Your task to perform on an android device: Show me productivity apps on the Play Store Image 0: 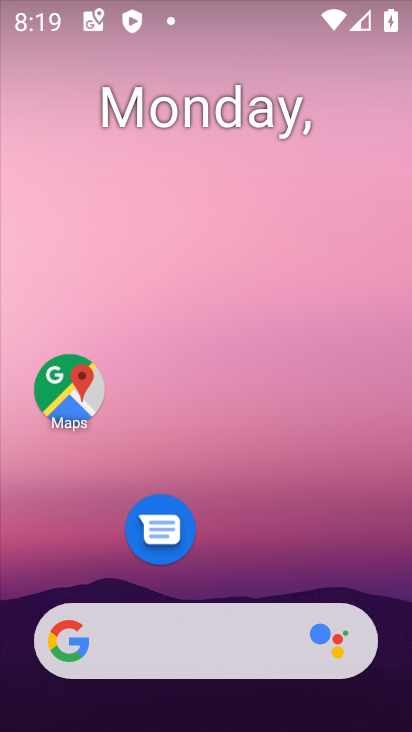
Step 0: drag from (222, 528) to (255, 165)
Your task to perform on an android device: Show me productivity apps on the Play Store Image 1: 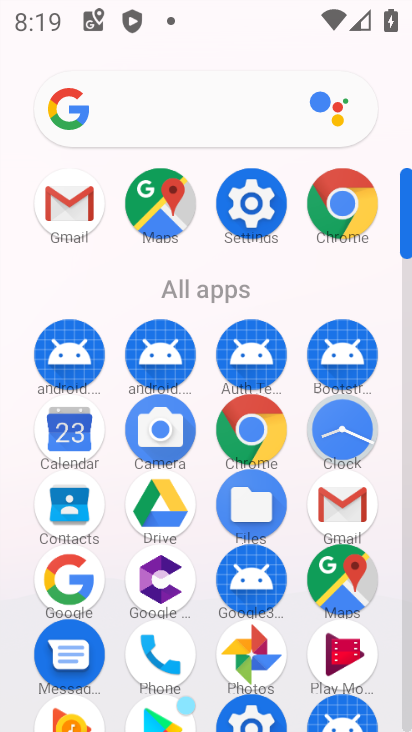
Step 1: drag from (287, 560) to (281, 219)
Your task to perform on an android device: Show me productivity apps on the Play Store Image 2: 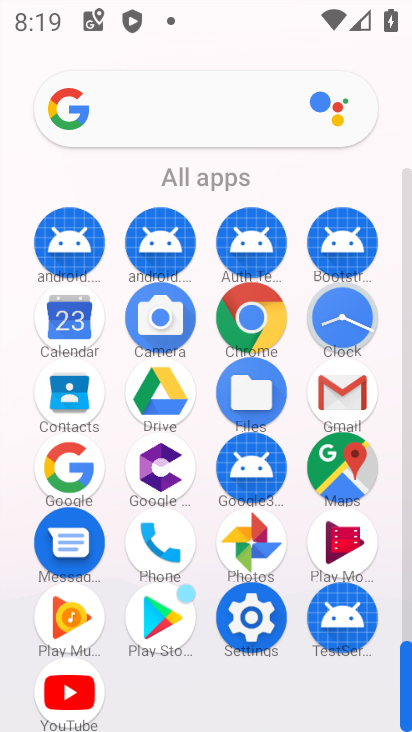
Step 2: click (174, 593)
Your task to perform on an android device: Show me productivity apps on the Play Store Image 3: 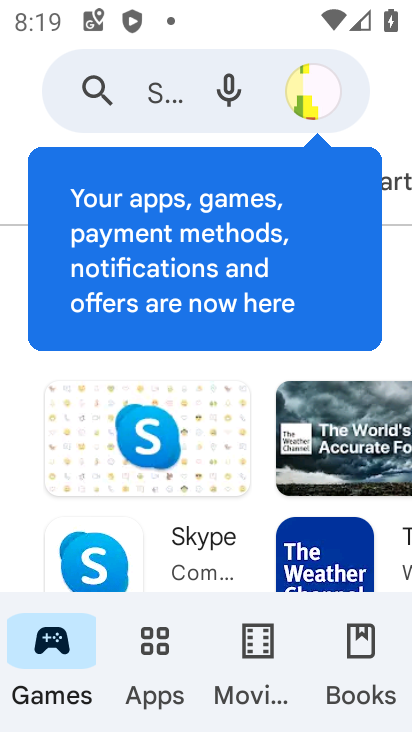
Step 3: click (138, 644)
Your task to perform on an android device: Show me productivity apps on the Play Store Image 4: 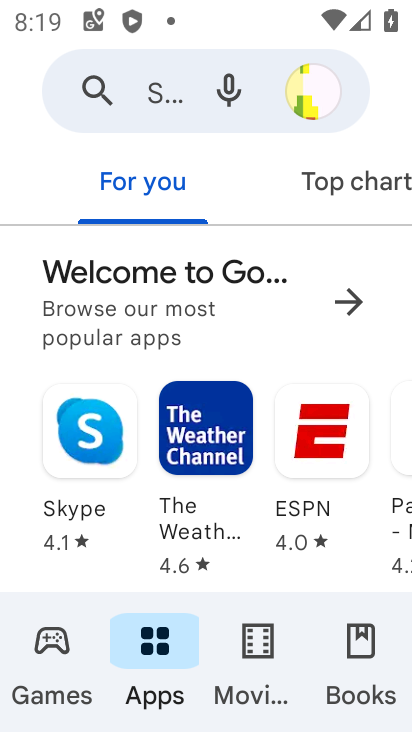
Step 4: drag from (375, 184) to (75, 187)
Your task to perform on an android device: Show me productivity apps on the Play Store Image 5: 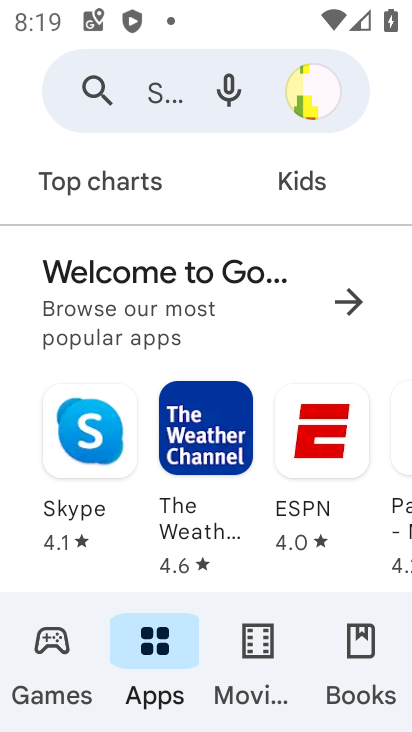
Step 5: drag from (316, 191) to (56, 182)
Your task to perform on an android device: Show me productivity apps on the Play Store Image 6: 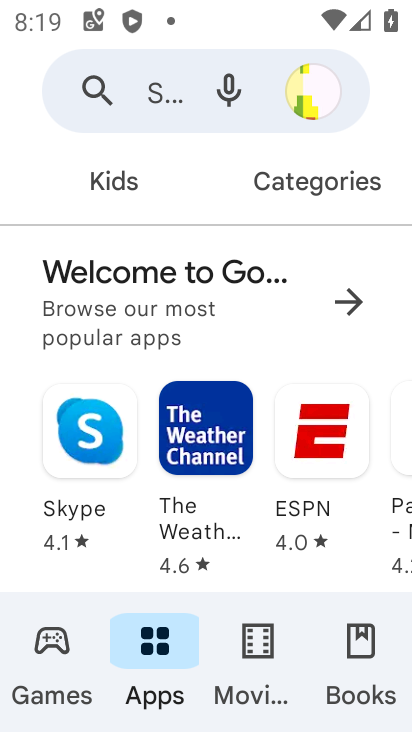
Step 6: click (320, 176)
Your task to perform on an android device: Show me productivity apps on the Play Store Image 7: 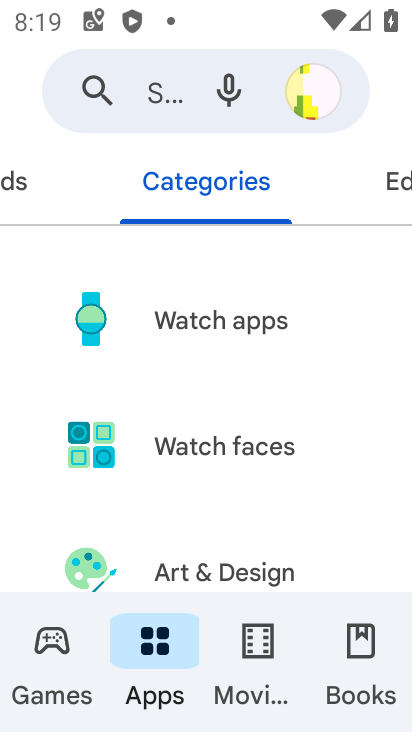
Step 7: drag from (279, 573) to (262, 190)
Your task to perform on an android device: Show me productivity apps on the Play Store Image 8: 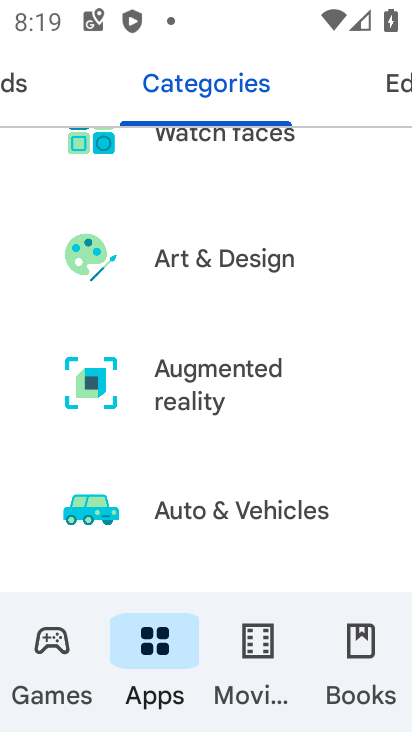
Step 8: drag from (222, 479) to (233, 221)
Your task to perform on an android device: Show me productivity apps on the Play Store Image 9: 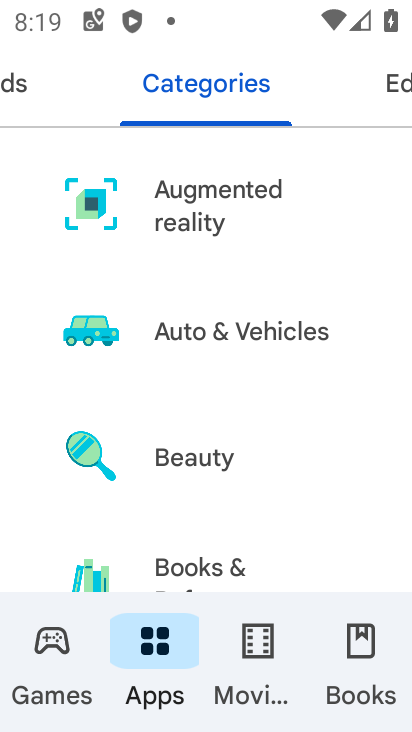
Step 9: drag from (257, 488) to (261, 206)
Your task to perform on an android device: Show me productivity apps on the Play Store Image 10: 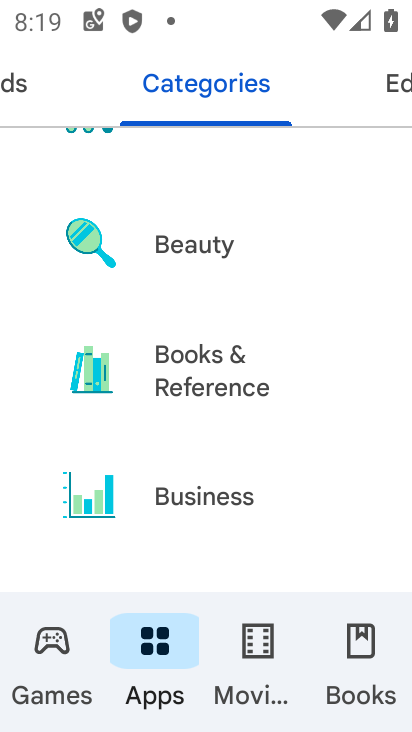
Step 10: drag from (261, 510) to (264, 199)
Your task to perform on an android device: Show me productivity apps on the Play Store Image 11: 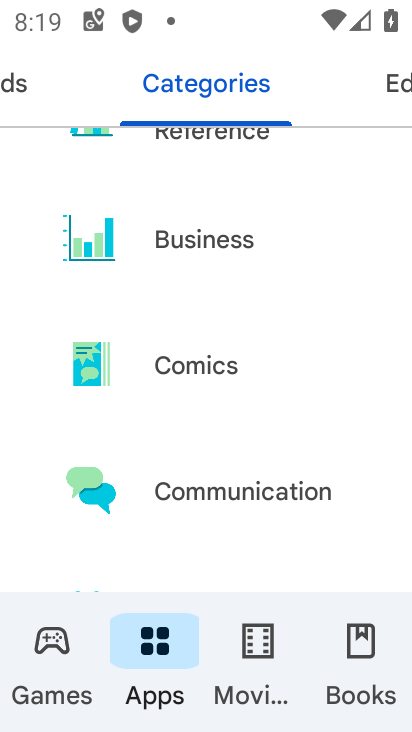
Step 11: drag from (286, 299) to (289, 216)
Your task to perform on an android device: Show me productivity apps on the Play Store Image 12: 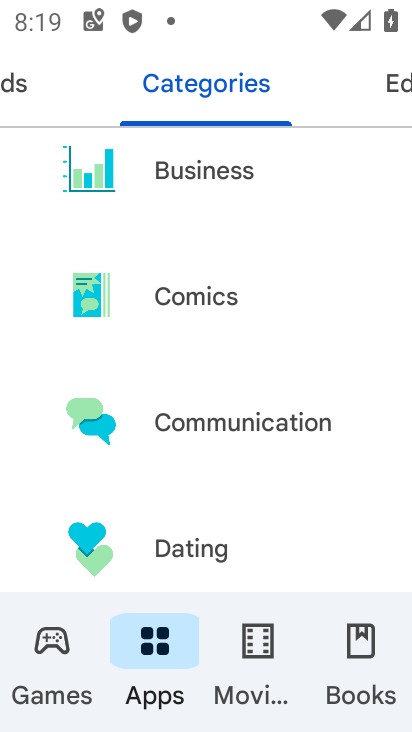
Step 12: drag from (237, 497) to (251, 205)
Your task to perform on an android device: Show me productivity apps on the Play Store Image 13: 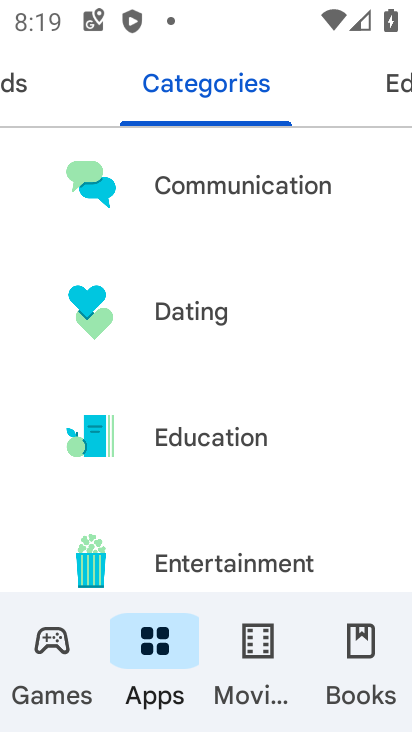
Step 13: drag from (260, 458) to (271, 151)
Your task to perform on an android device: Show me productivity apps on the Play Store Image 14: 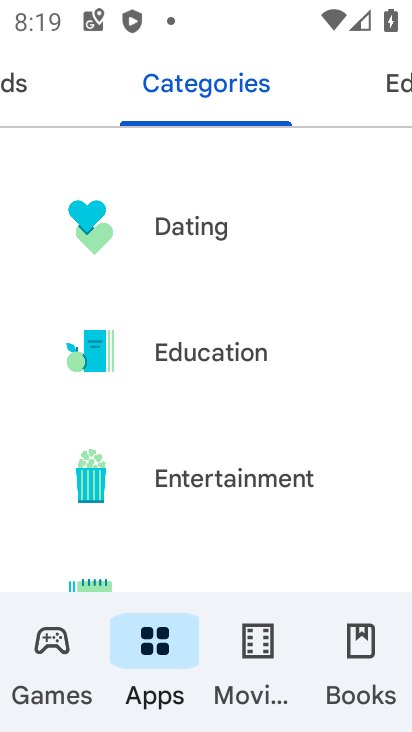
Step 14: drag from (273, 452) to (285, 170)
Your task to perform on an android device: Show me productivity apps on the Play Store Image 15: 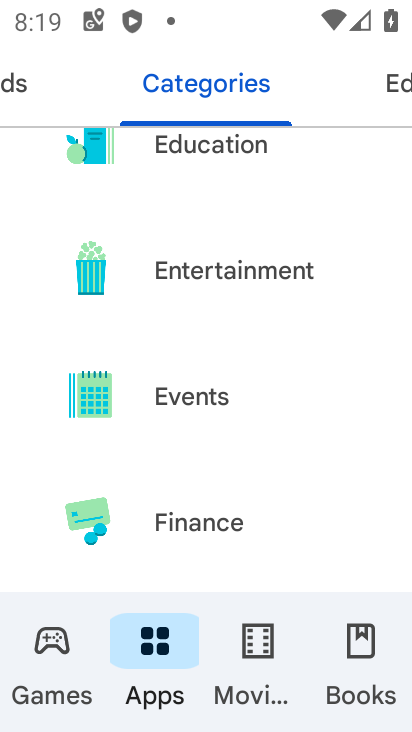
Step 15: drag from (256, 520) to (253, 197)
Your task to perform on an android device: Show me productivity apps on the Play Store Image 16: 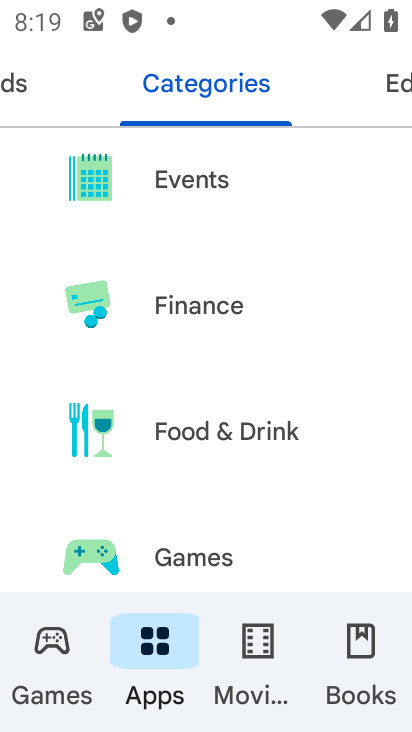
Step 16: drag from (253, 495) to (278, 165)
Your task to perform on an android device: Show me productivity apps on the Play Store Image 17: 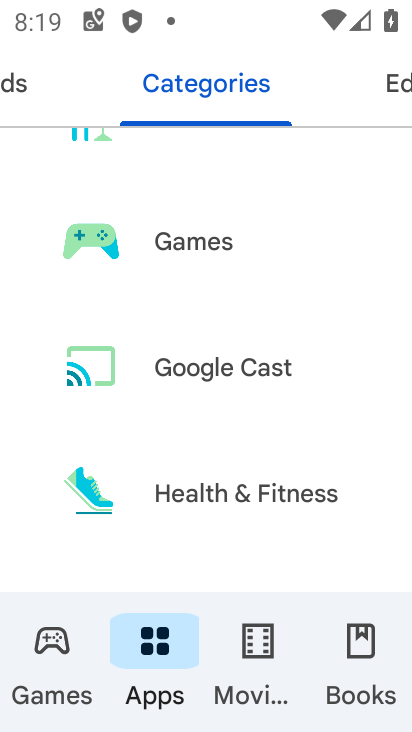
Step 17: drag from (268, 526) to (270, 138)
Your task to perform on an android device: Show me productivity apps on the Play Store Image 18: 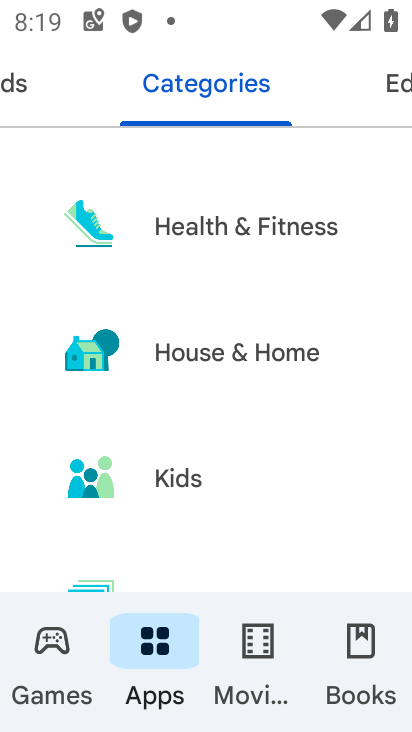
Step 18: drag from (251, 539) to (270, 139)
Your task to perform on an android device: Show me productivity apps on the Play Store Image 19: 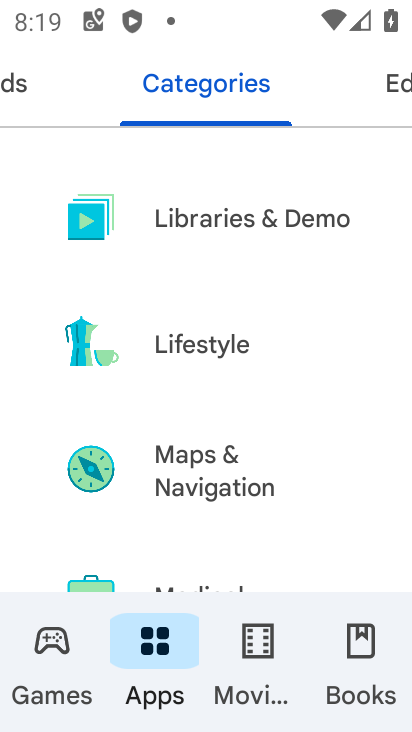
Step 19: drag from (278, 489) to (289, 157)
Your task to perform on an android device: Show me productivity apps on the Play Store Image 20: 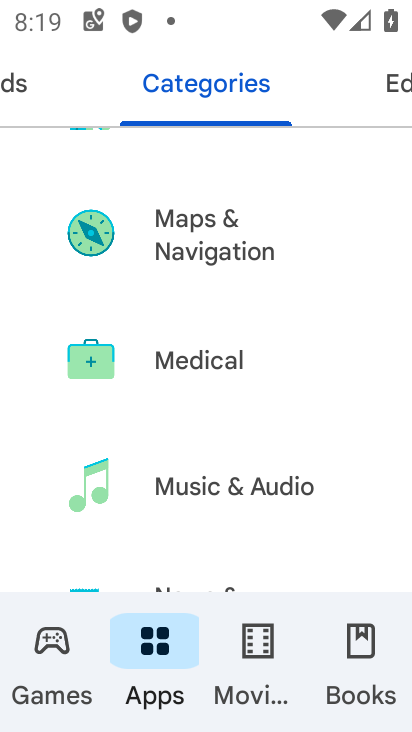
Step 20: drag from (270, 551) to (287, 181)
Your task to perform on an android device: Show me productivity apps on the Play Store Image 21: 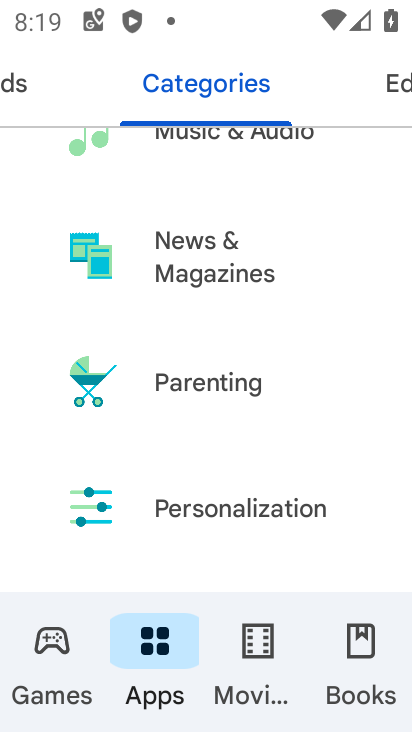
Step 21: drag from (238, 505) to (251, 217)
Your task to perform on an android device: Show me productivity apps on the Play Store Image 22: 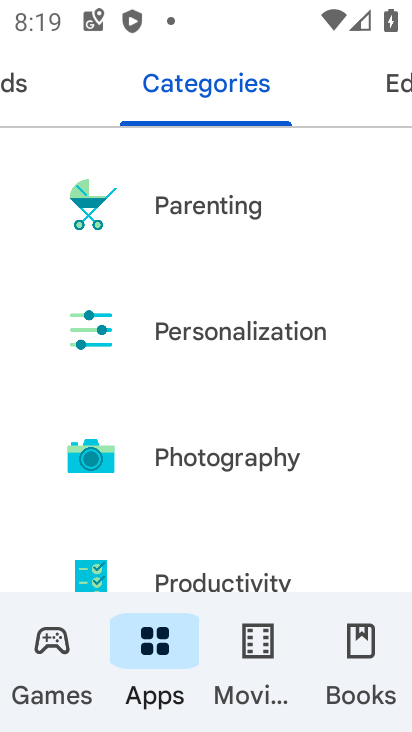
Step 22: click (222, 564)
Your task to perform on an android device: Show me productivity apps on the Play Store Image 23: 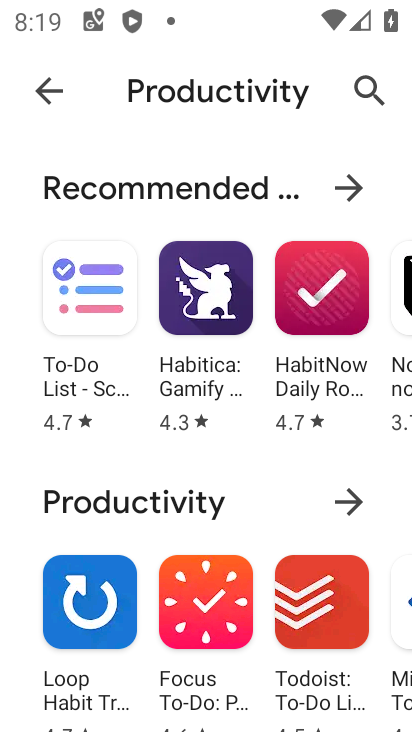
Step 23: task complete